Your task to perform on an android device: refresh tabs in the chrome app Image 0: 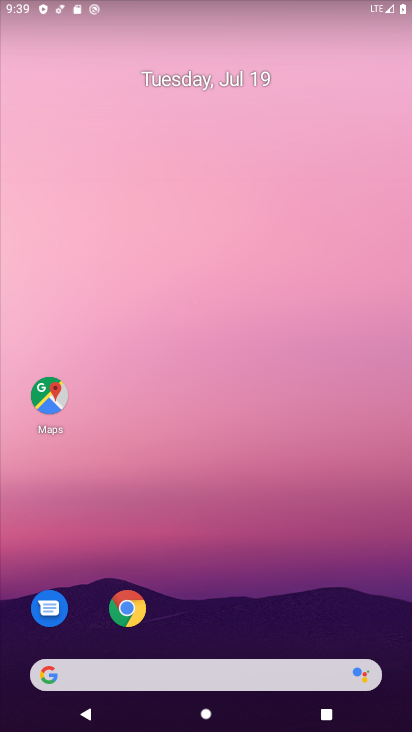
Step 0: press home button
Your task to perform on an android device: refresh tabs in the chrome app Image 1: 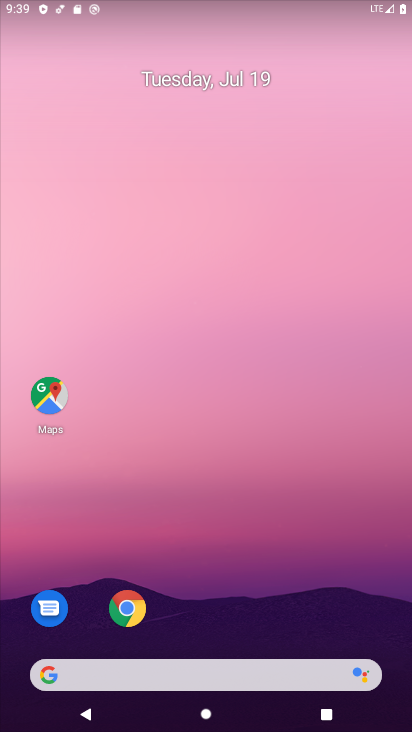
Step 1: click (134, 611)
Your task to perform on an android device: refresh tabs in the chrome app Image 2: 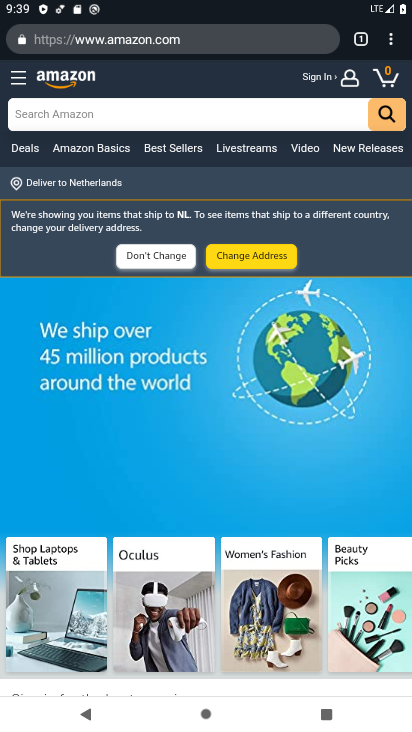
Step 2: click (387, 50)
Your task to perform on an android device: refresh tabs in the chrome app Image 3: 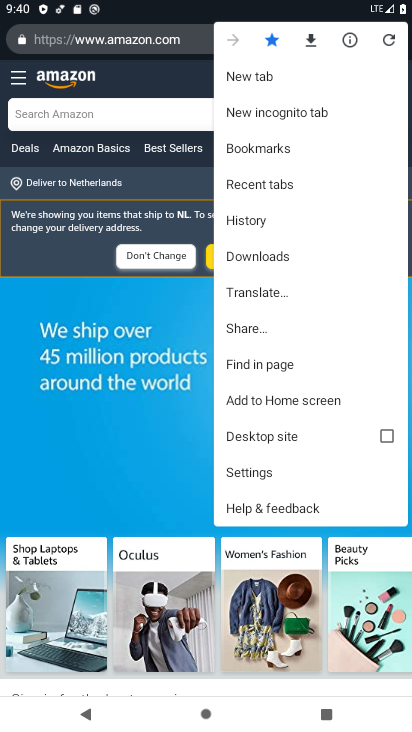
Step 3: click (395, 40)
Your task to perform on an android device: refresh tabs in the chrome app Image 4: 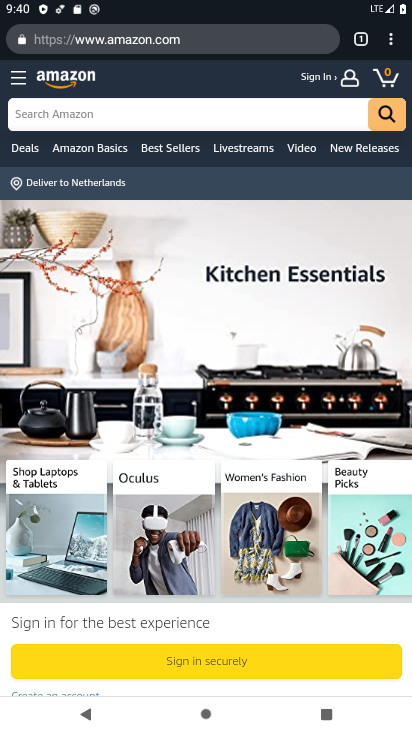
Step 4: task complete